Your task to perform on an android device: Add "logitech g502" to the cart on amazon Image 0: 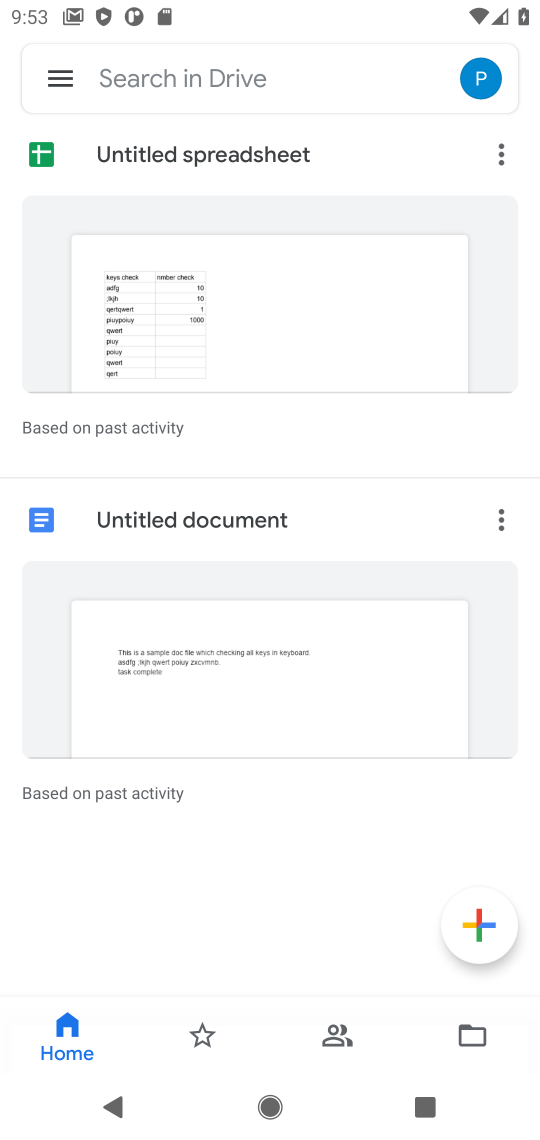
Step 0: press home button
Your task to perform on an android device: Add "logitech g502" to the cart on amazon Image 1: 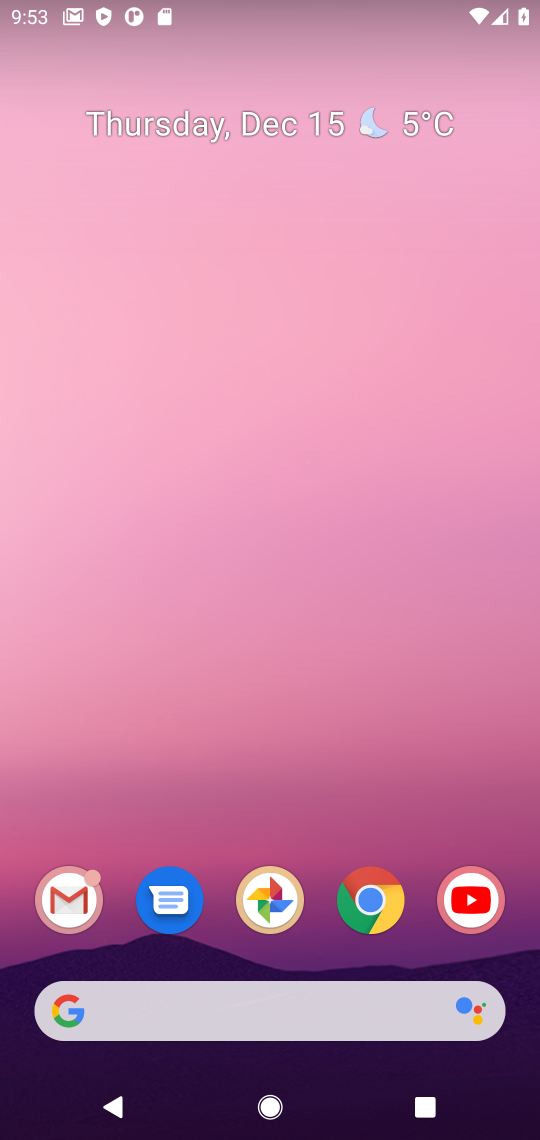
Step 1: click (371, 918)
Your task to perform on an android device: Add "logitech g502" to the cart on amazon Image 2: 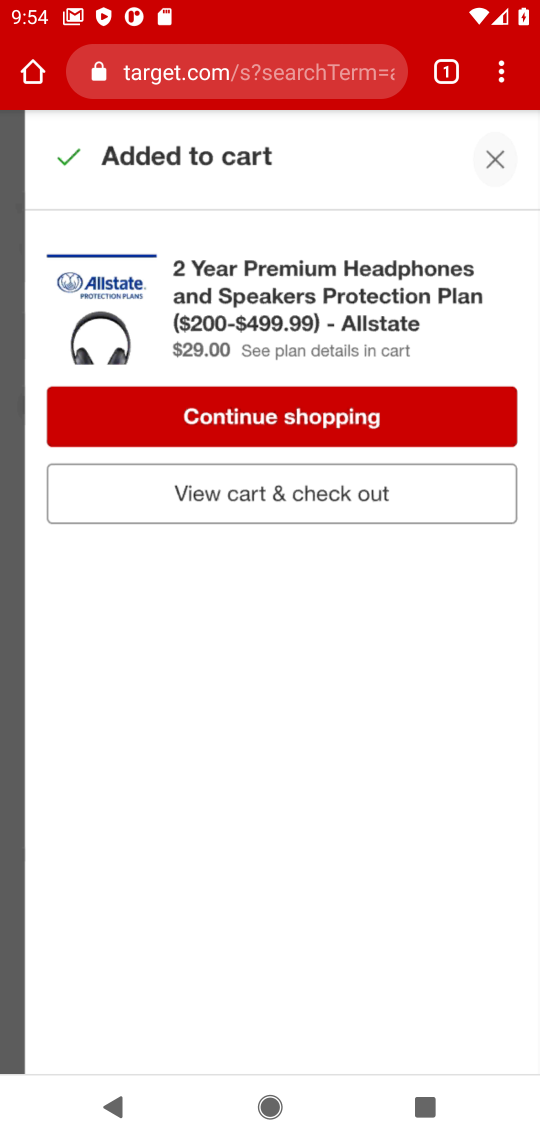
Step 2: click (249, 68)
Your task to perform on an android device: Add "logitech g502" to the cart on amazon Image 3: 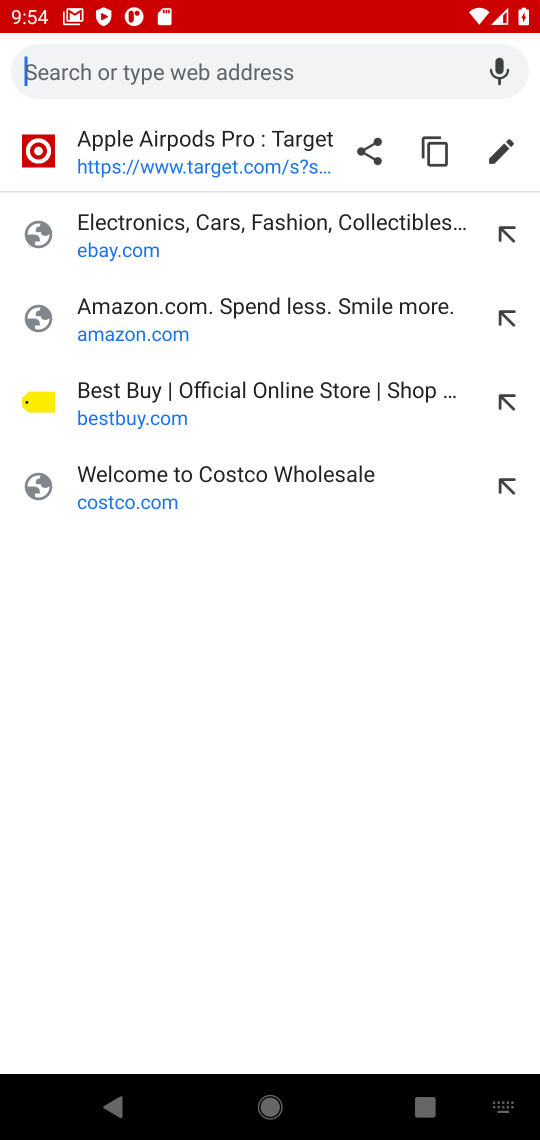
Step 3: type "amazon"
Your task to perform on an android device: Add "logitech g502" to the cart on amazon Image 4: 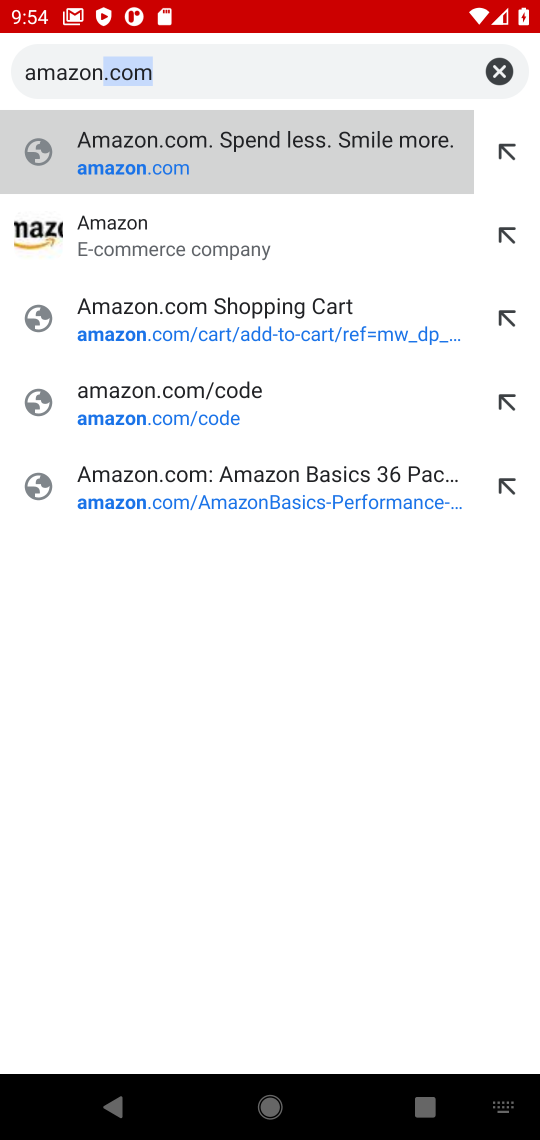
Step 4: click (317, 153)
Your task to perform on an android device: Add "logitech g502" to the cart on amazon Image 5: 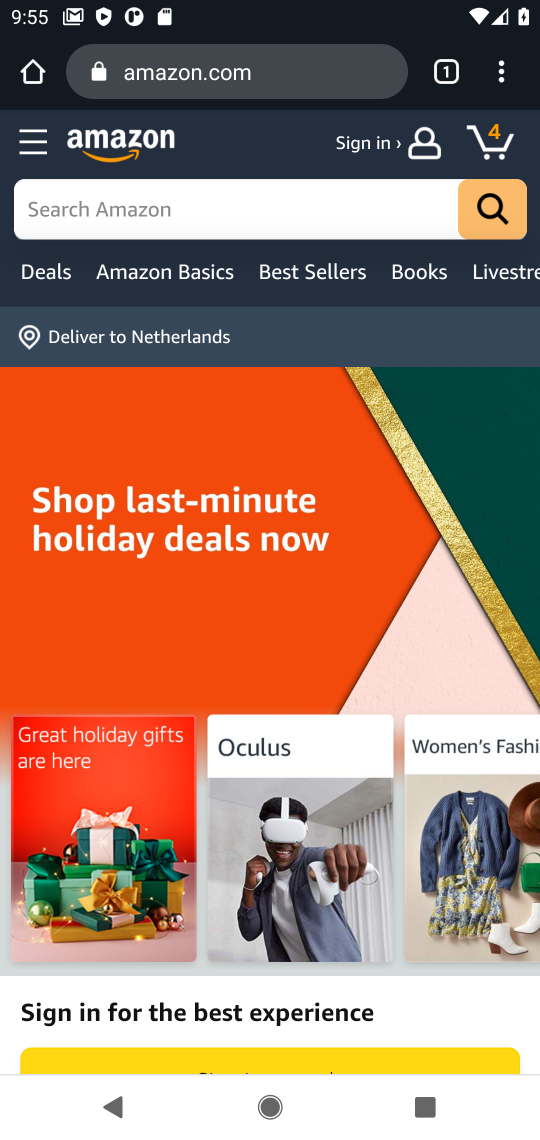
Step 5: click (90, 222)
Your task to perform on an android device: Add "logitech g502" to the cart on amazon Image 6: 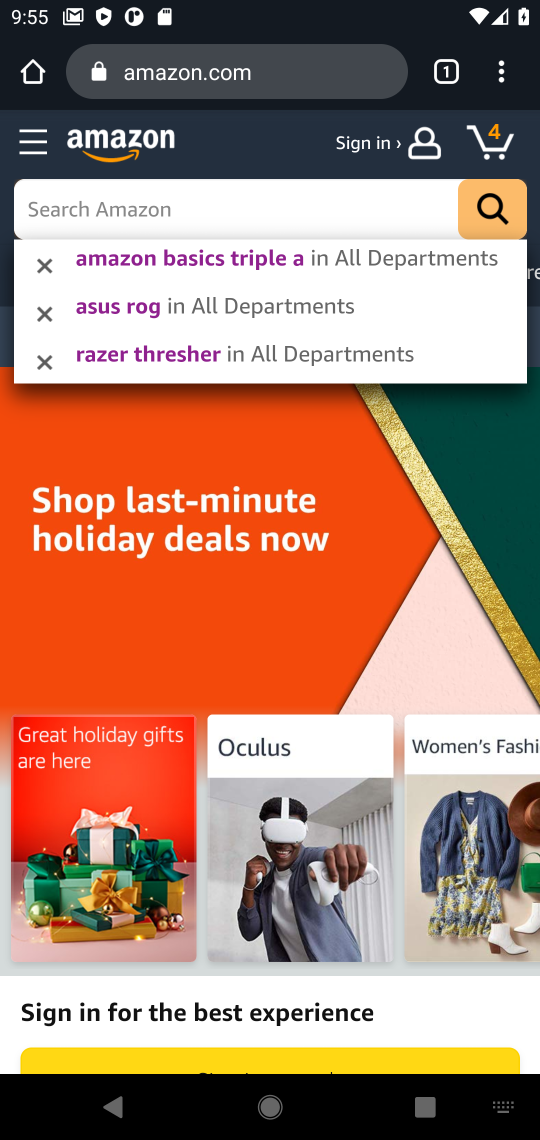
Step 6: type "logitech g502"
Your task to perform on an android device: Add "logitech g502" to the cart on amazon Image 7: 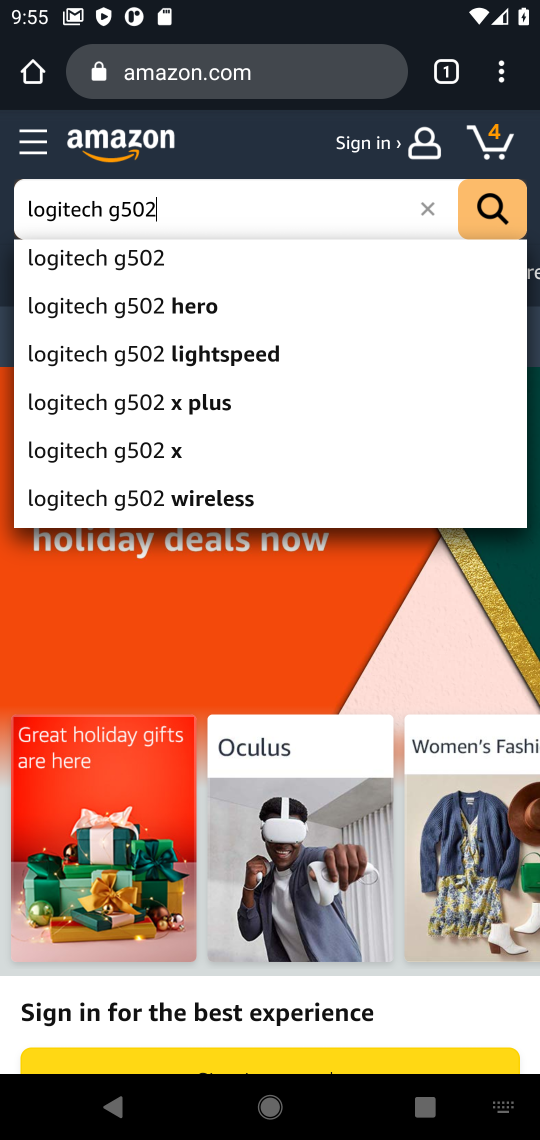
Step 7: press enter
Your task to perform on an android device: Add "logitech g502" to the cart on amazon Image 8: 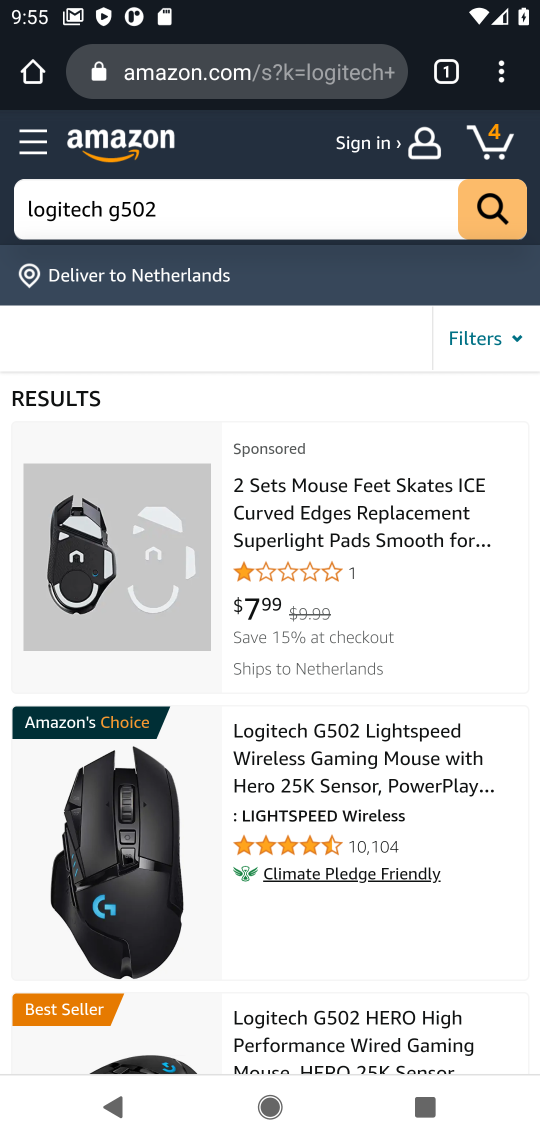
Step 8: click (359, 799)
Your task to perform on an android device: Add "logitech g502" to the cart on amazon Image 9: 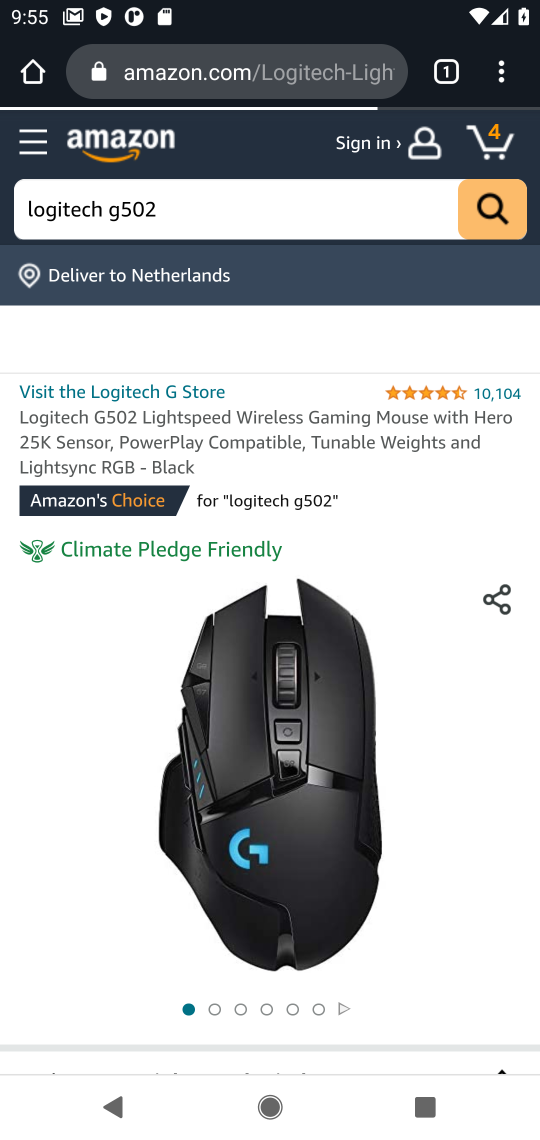
Step 9: task complete